Your task to perform on an android device: turn on translation in the chrome app Image 0: 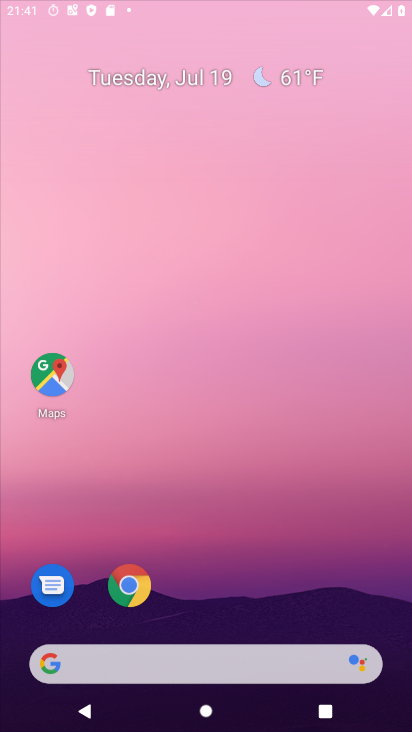
Step 0: press home button
Your task to perform on an android device: turn on translation in the chrome app Image 1: 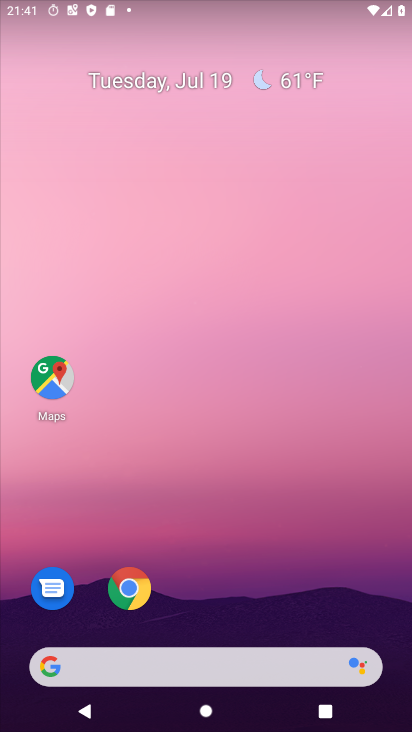
Step 1: click (126, 582)
Your task to perform on an android device: turn on translation in the chrome app Image 2: 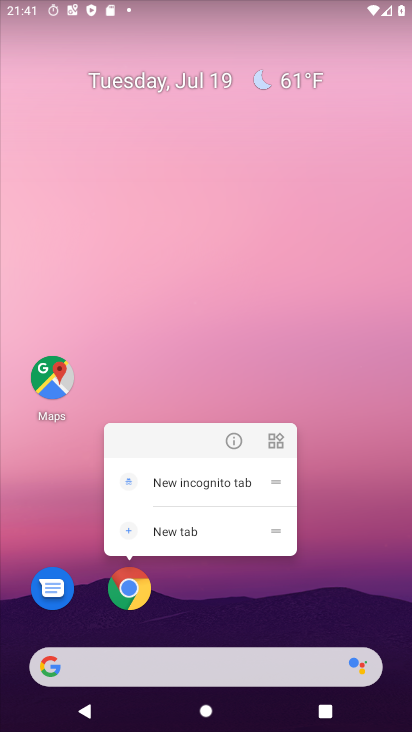
Step 2: click (126, 582)
Your task to perform on an android device: turn on translation in the chrome app Image 3: 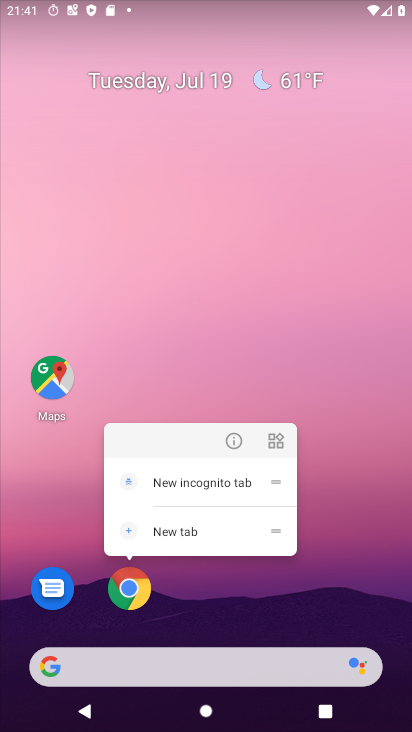
Step 3: click (126, 582)
Your task to perform on an android device: turn on translation in the chrome app Image 4: 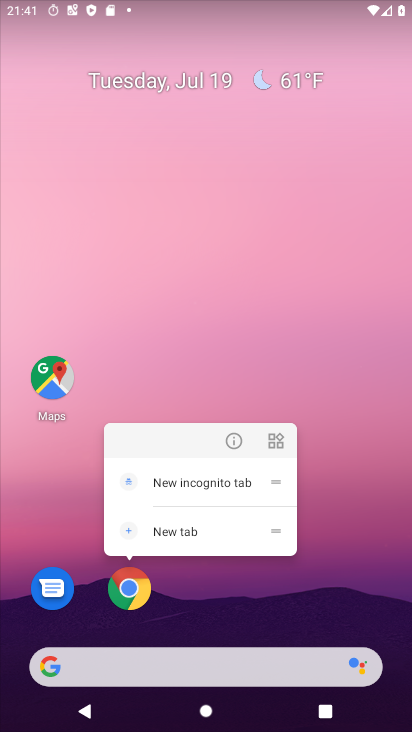
Step 4: click (126, 582)
Your task to perform on an android device: turn on translation in the chrome app Image 5: 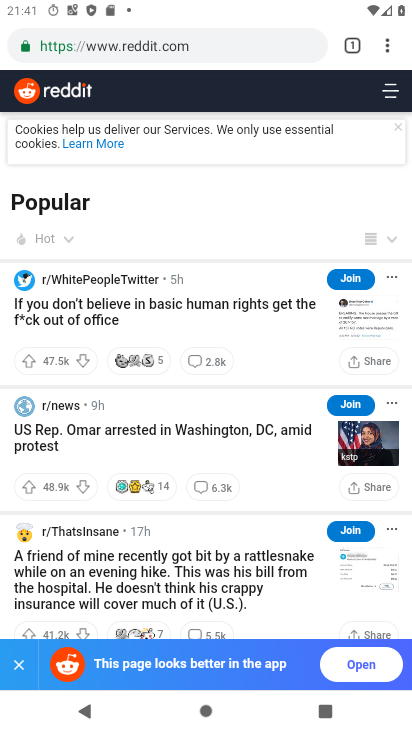
Step 5: click (388, 40)
Your task to perform on an android device: turn on translation in the chrome app Image 6: 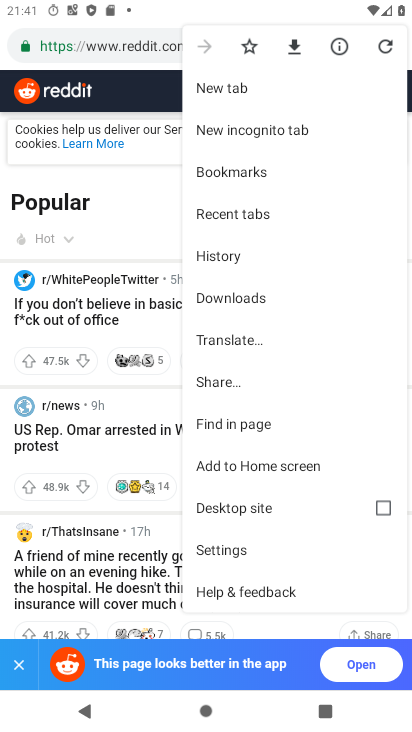
Step 6: click (253, 550)
Your task to perform on an android device: turn on translation in the chrome app Image 7: 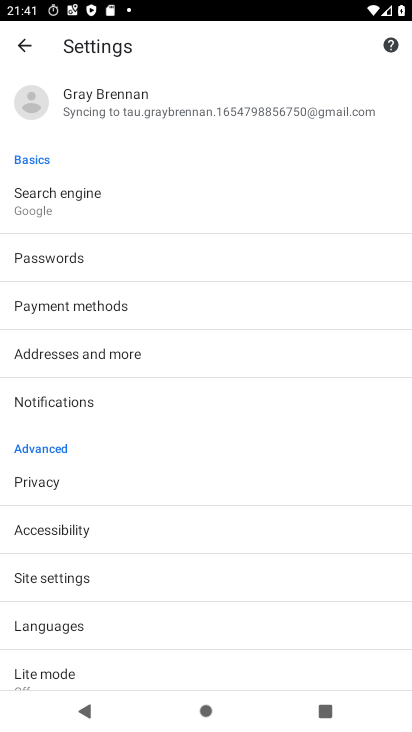
Step 7: click (97, 623)
Your task to perform on an android device: turn on translation in the chrome app Image 8: 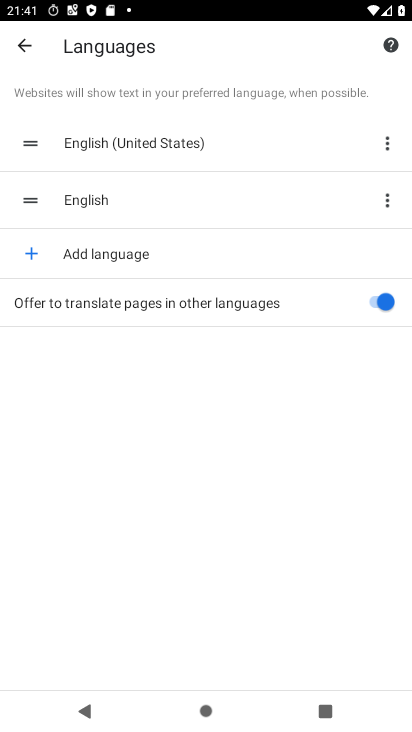
Step 8: task complete